Your task to perform on an android device: change timer sound Image 0: 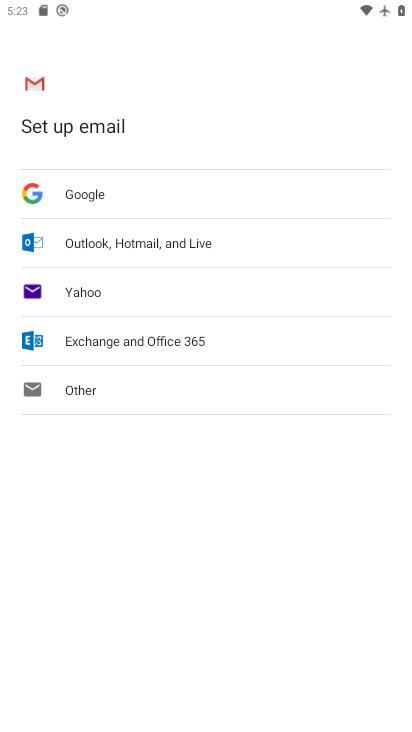
Step 0: press home button
Your task to perform on an android device: change timer sound Image 1: 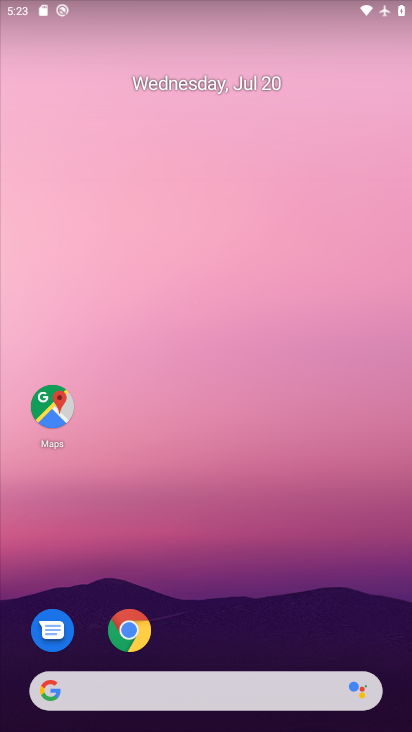
Step 1: drag from (241, 633) to (261, 97)
Your task to perform on an android device: change timer sound Image 2: 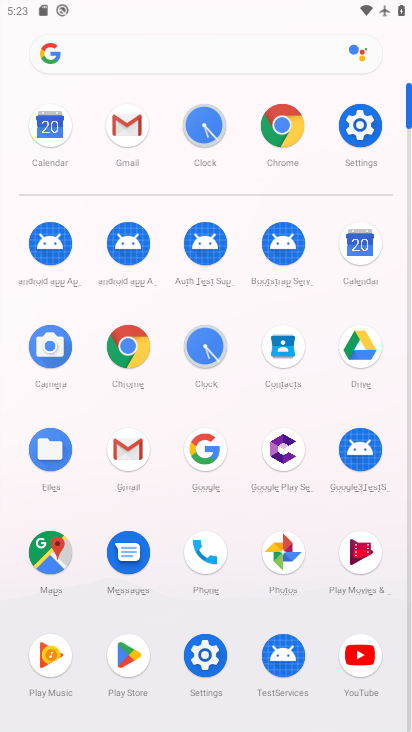
Step 2: click (199, 128)
Your task to perform on an android device: change timer sound Image 3: 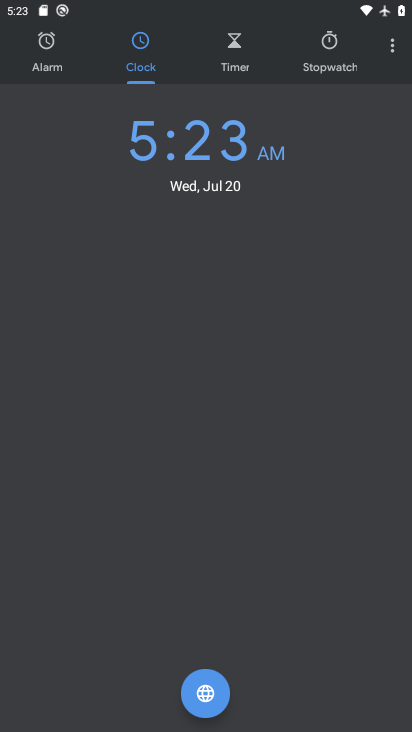
Step 3: click (380, 43)
Your task to perform on an android device: change timer sound Image 4: 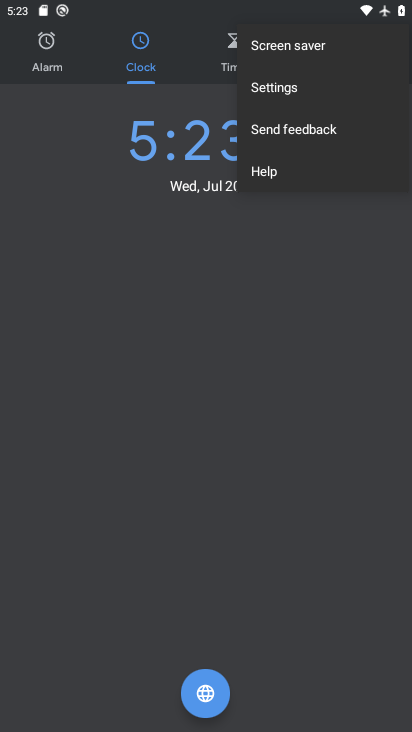
Step 4: click (277, 89)
Your task to perform on an android device: change timer sound Image 5: 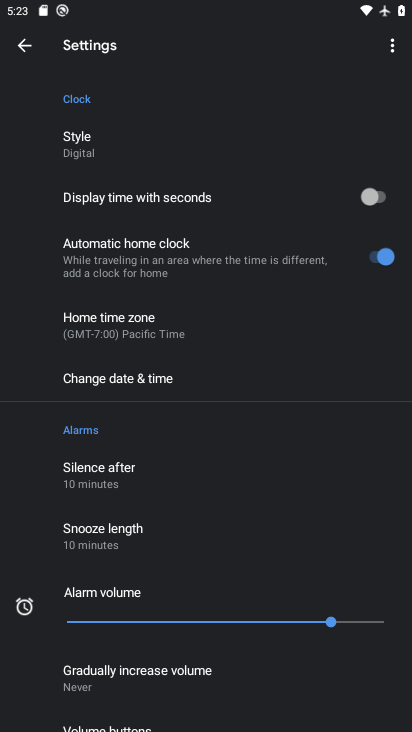
Step 5: drag from (244, 539) to (312, 136)
Your task to perform on an android device: change timer sound Image 6: 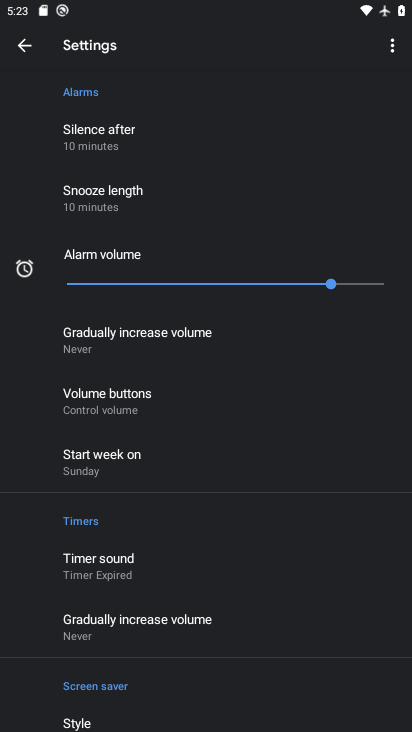
Step 6: click (99, 567)
Your task to perform on an android device: change timer sound Image 7: 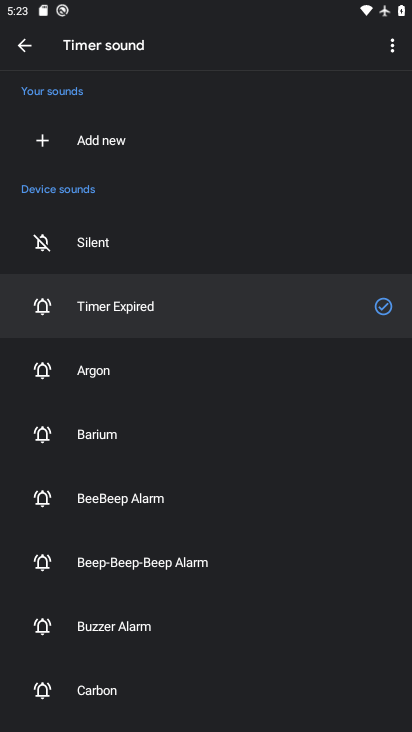
Step 7: click (76, 446)
Your task to perform on an android device: change timer sound Image 8: 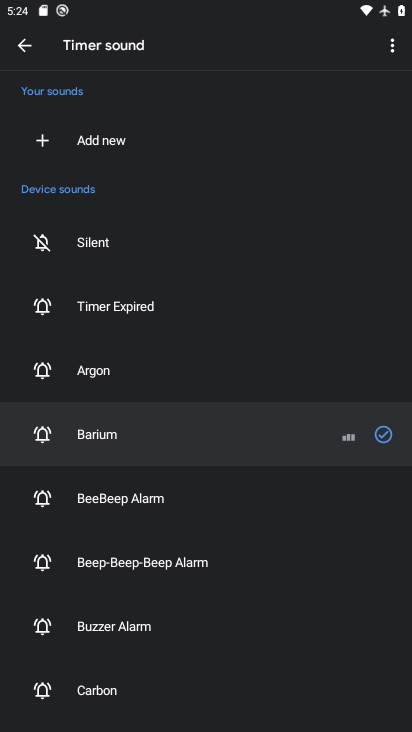
Step 8: task complete